Your task to perform on an android device: toggle location history Image 0: 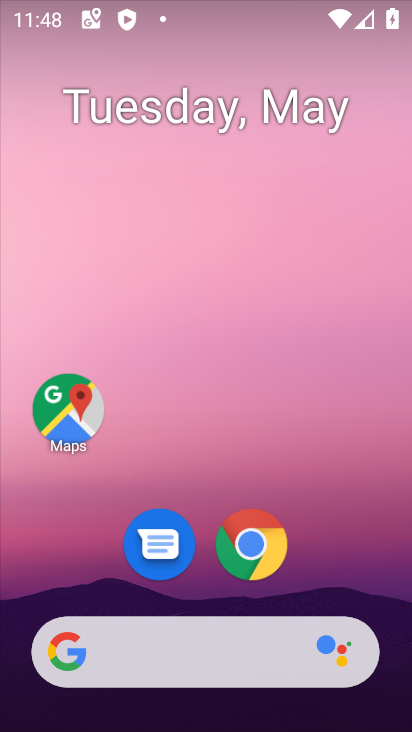
Step 0: drag from (243, 521) to (149, 80)
Your task to perform on an android device: toggle location history Image 1: 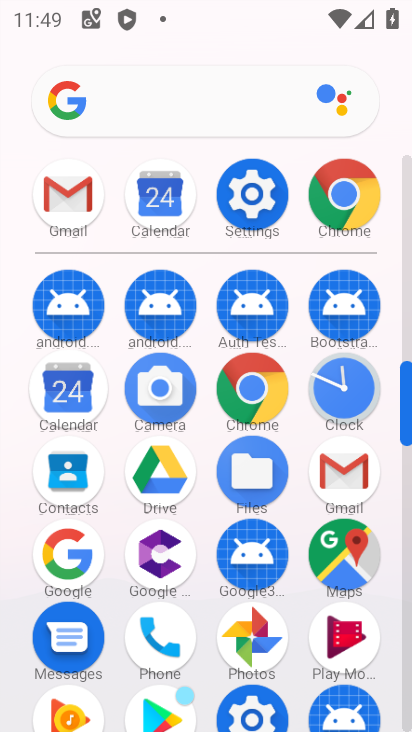
Step 1: click (246, 202)
Your task to perform on an android device: toggle location history Image 2: 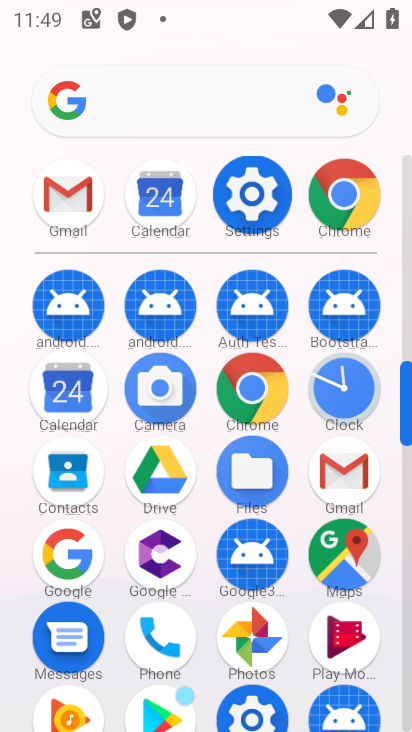
Step 2: click (246, 202)
Your task to perform on an android device: toggle location history Image 3: 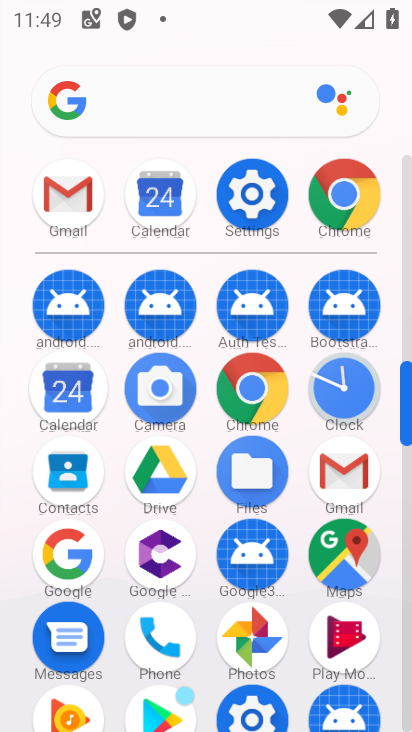
Step 3: click (246, 193)
Your task to perform on an android device: toggle location history Image 4: 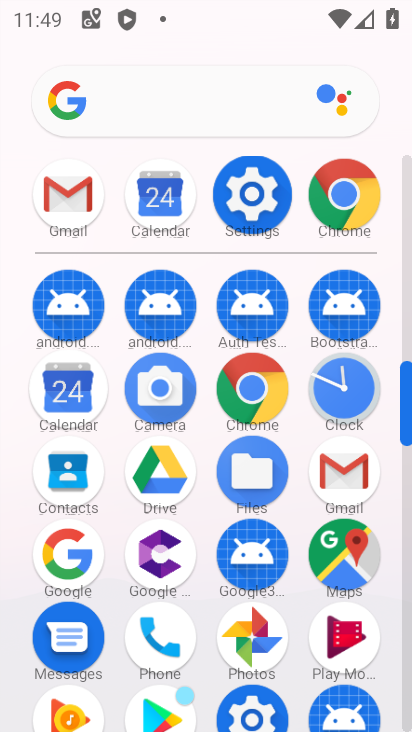
Step 4: click (246, 193)
Your task to perform on an android device: toggle location history Image 5: 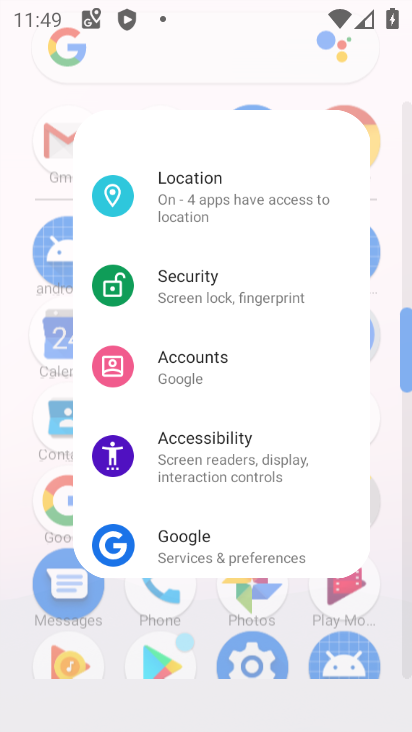
Step 5: click (246, 188)
Your task to perform on an android device: toggle location history Image 6: 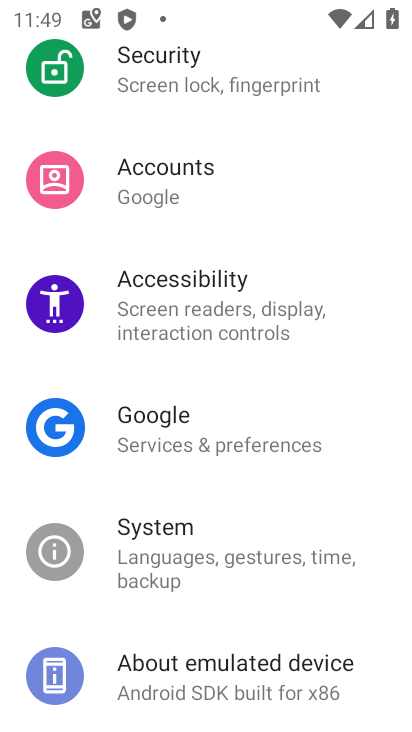
Step 6: click (246, 188)
Your task to perform on an android device: toggle location history Image 7: 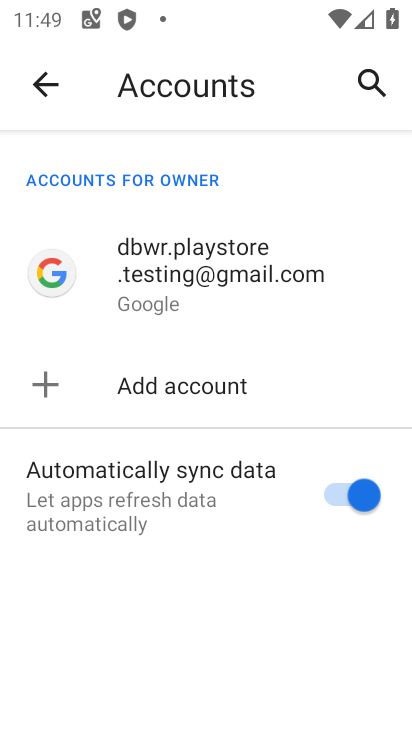
Step 7: click (46, 88)
Your task to perform on an android device: toggle location history Image 8: 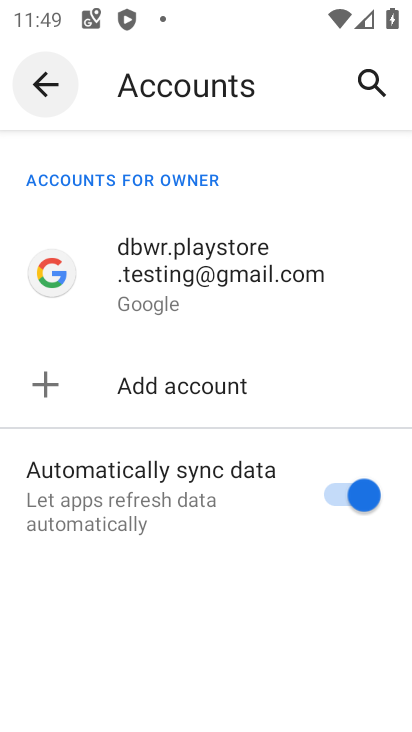
Step 8: click (47, 88)
Your task to perform on an android device: toggle location history Image 9: 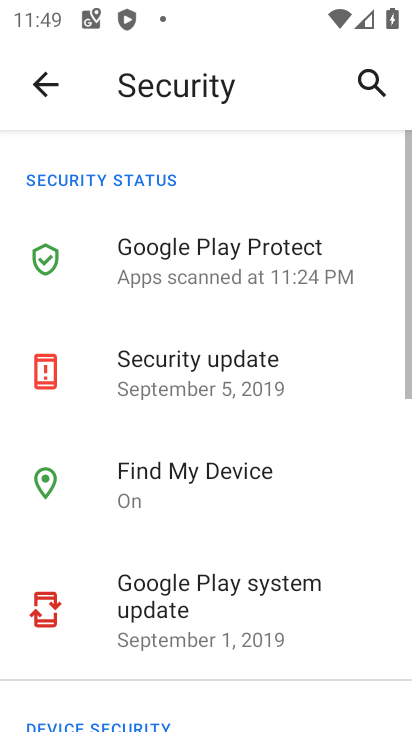
Step 9: click (37, 89)
Your task to perform on an android device: toggle location history Image 10: 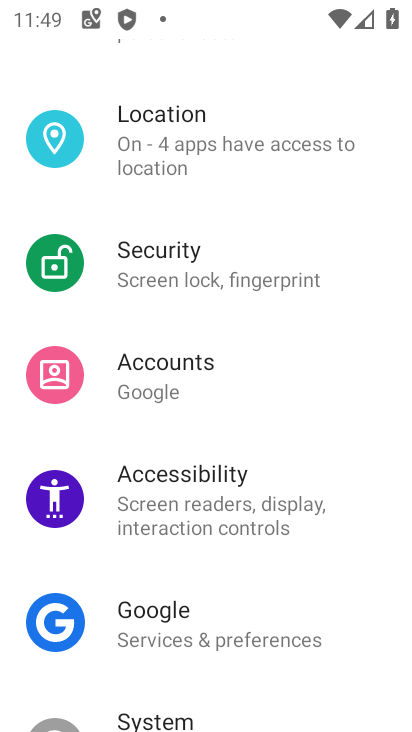
Step 10: drag from (196, 563) to (169, 292)
Your task to perform on an android device: toggle location history Image 11: 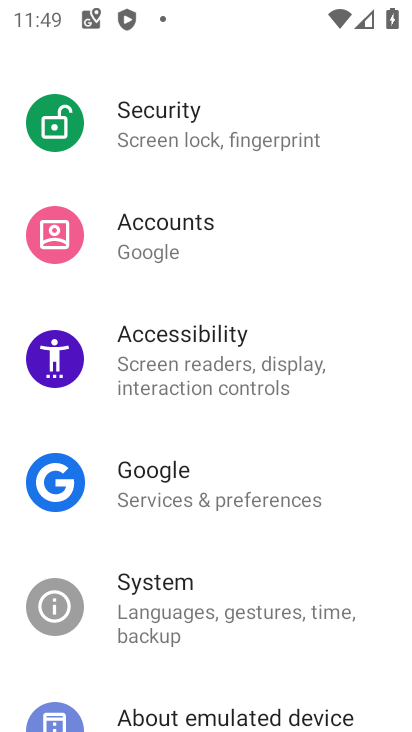
Step 11: drag from (203, 511) to (145, 293)
Your task to perform on an android device: toggle location history Image 12: 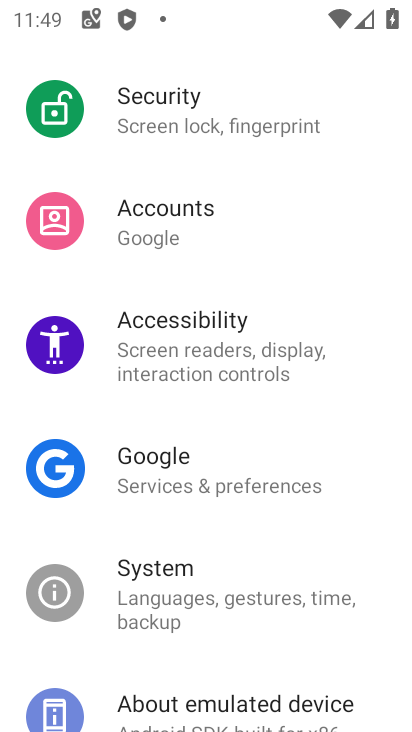
Step 12: drag from (165, 228) to (213, 560)
Your task to perform on an android device: toggle location history Image 13: 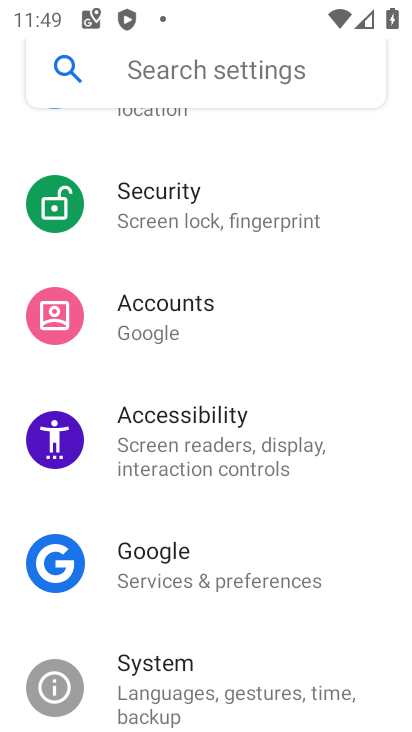
Step 13: drag from (175, 188) to (221, 475)
Your task to perform on an android device: toggle location history Image 14: 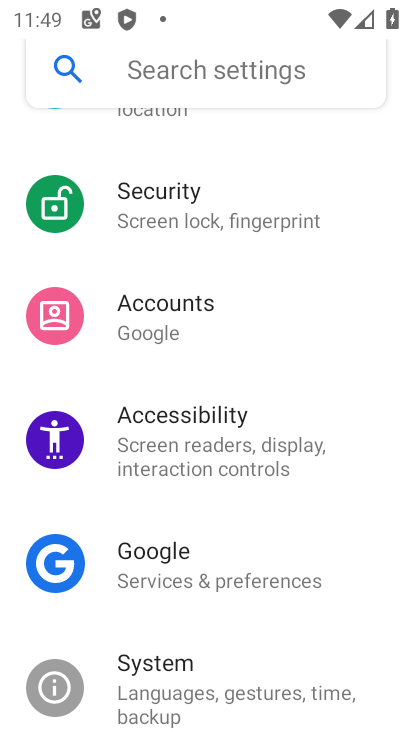
Step 14: drag from (183, 208) to (203, 554)
Your task to perform on an android device: toggle location history Image 15: 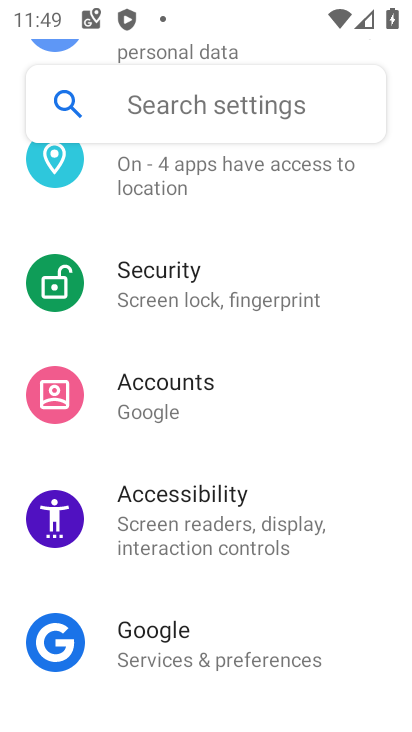
Step 15: drag from (176, 300) to (190, 544)
Your task to perform on an android device: toggle location history Image 16: 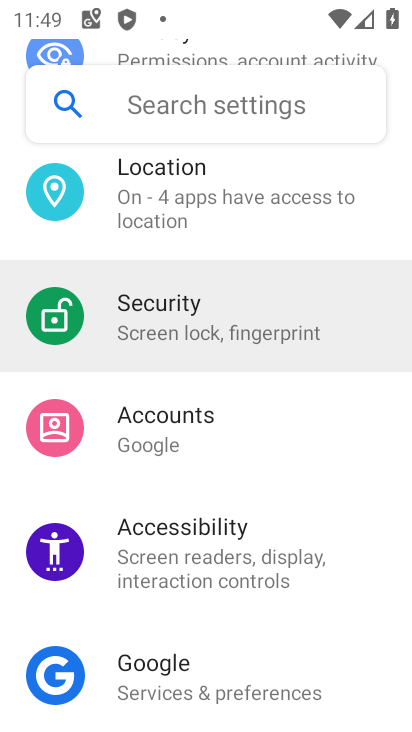
Step 16: drag from (171, 286) to (182, 593)
Your task to perform on an android device: toggle location history Image 17: 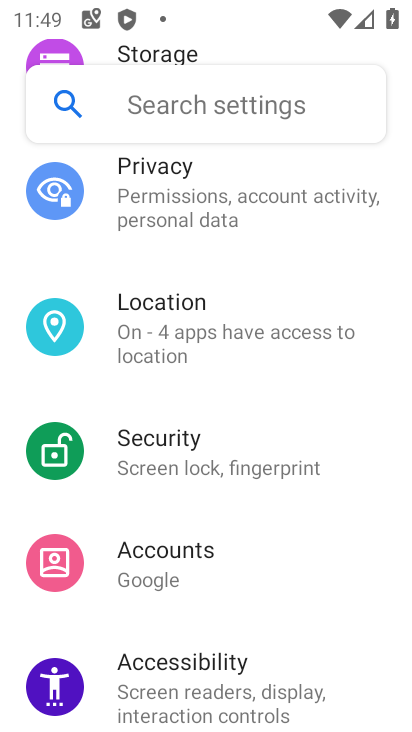
Step 17: click (171, 317)
Your task to perform on an android device: toggle location history Image 18: 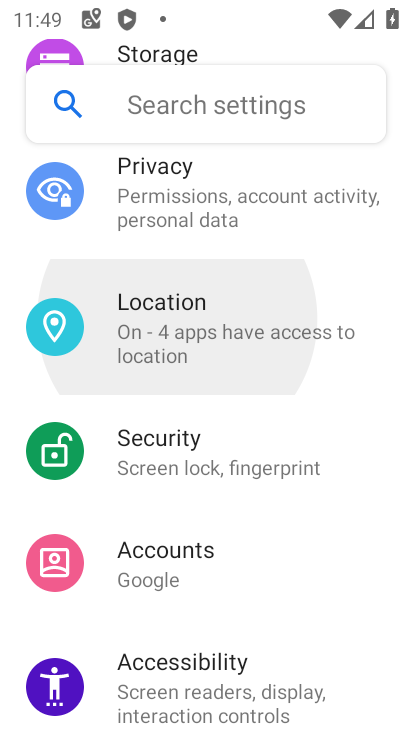
Step 18: click (172, 318)
Your task to perform on an android device: toggle location history Image 19: 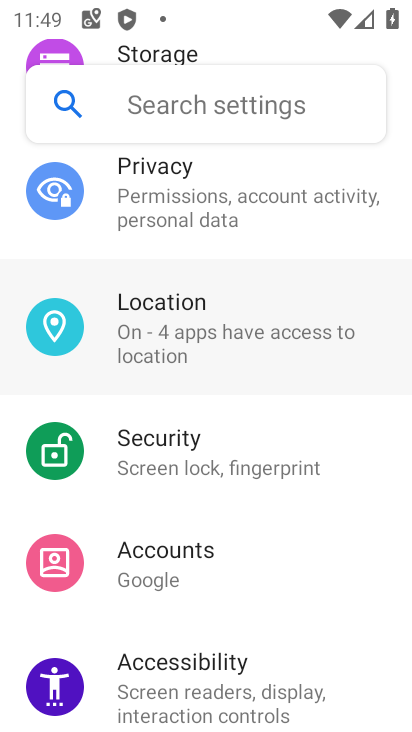
Step 19: click (172, 319)
Your task to perform on an android device: toggle location history Image 20: 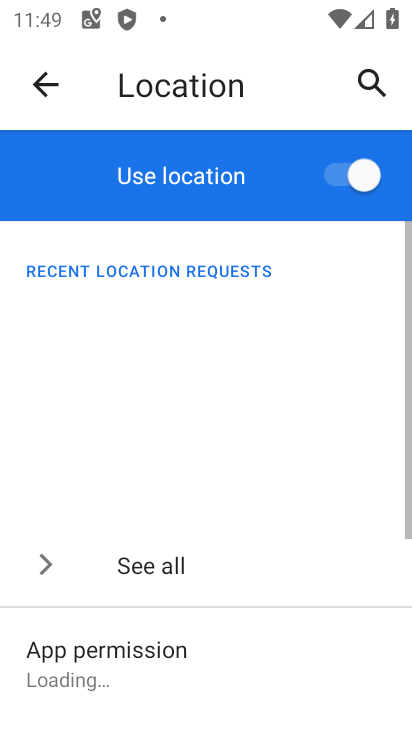
Step 20: click (173, 320)
Your task to perform on an android device: toggle location history Image 21: 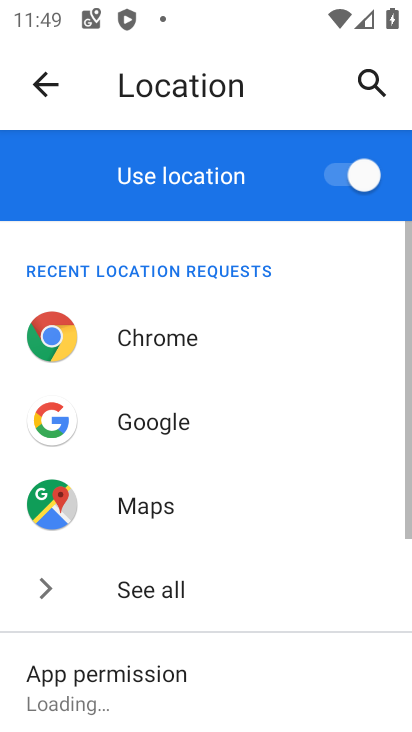
Step 21: drag from (195, 592) to (176, 184)
Your task to perform on an android device: toggle location history Image 22: 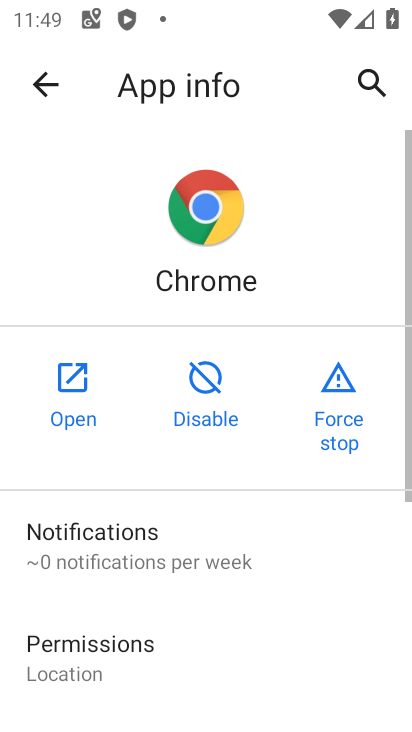
Step 22: drag from (152, 562) to (142, 217)
Your task to perform on an android device: toggle location history Image 23: 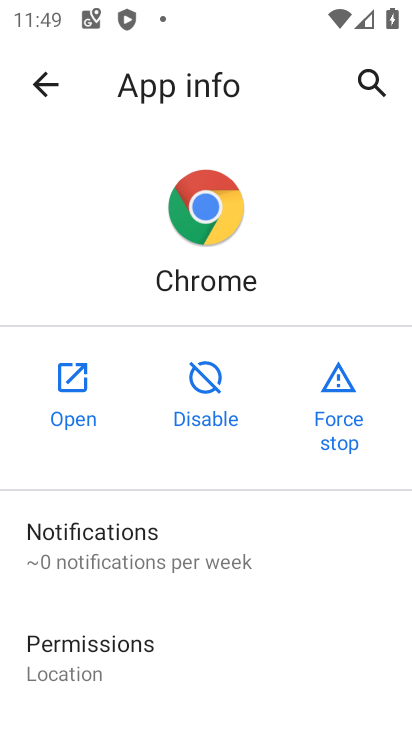
Step 23: drag from (238, 567) to (235, 284)
Your task to perform on an android device: toggle location history Image 24: 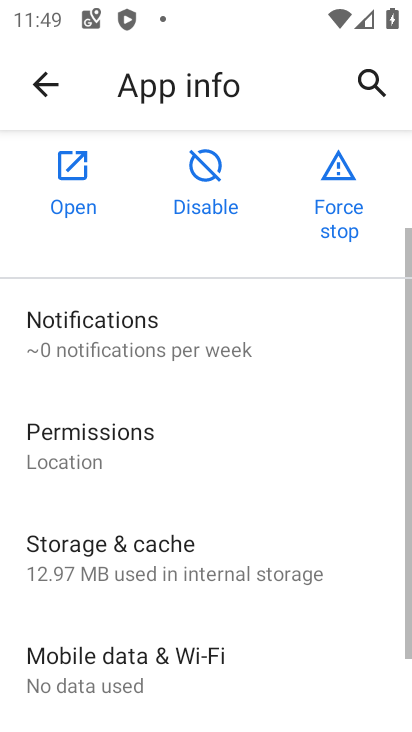
Step 24: drag from (202, 517) to (216, 224)
Your task to perform on an android device: toggle location history Image 25: 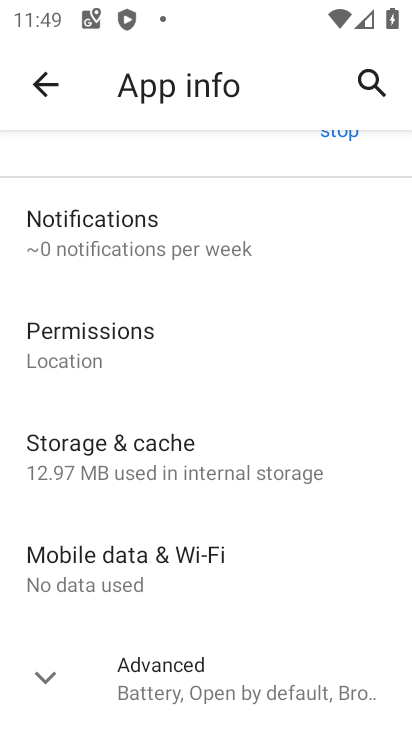
Step 25: click (48, 75)
Your task to perform on an android device: toggle location history Image 26: 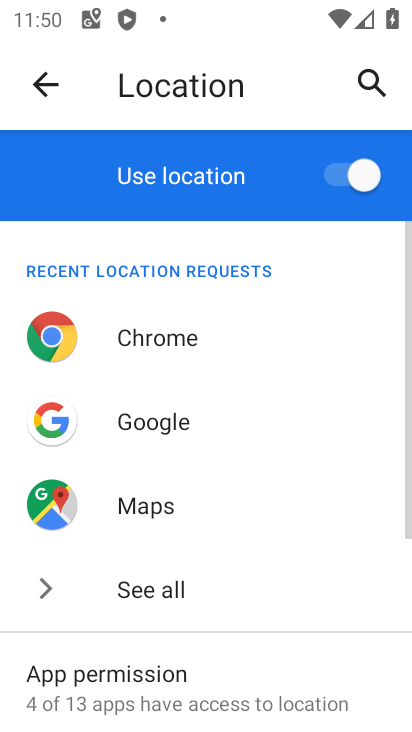
Step 26: drag from (202, 557) to (176, 224)
Your task to perform on an android device: toggle location history Image 27: 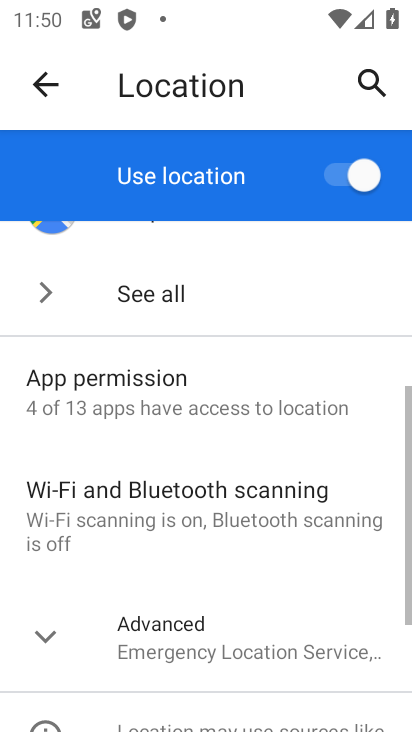
Step 27: drag from (277, 488) to (284, 146)
Your task to perform on an android device: toggle location history Image 28: 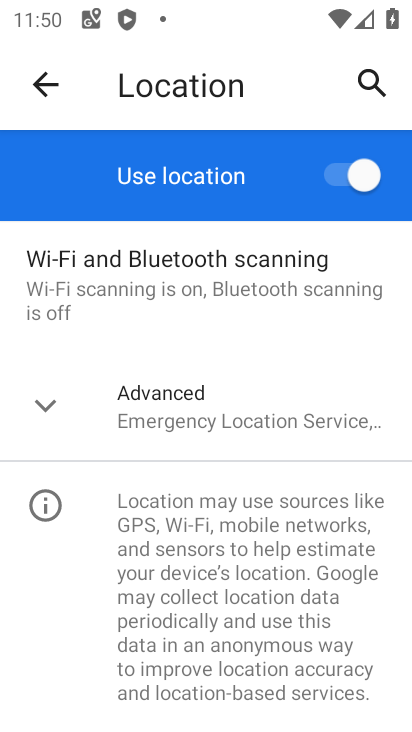
Step 28: click (171, 397)
Your task to perform on an android device: toggle location history Image 29: 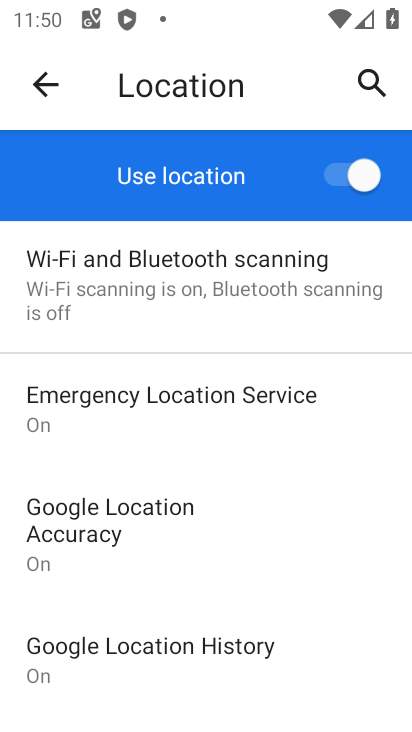
Step 29: drag from (257, 527) to (258, 231)
Your task to perform on an android device: toggle location history Image 30: 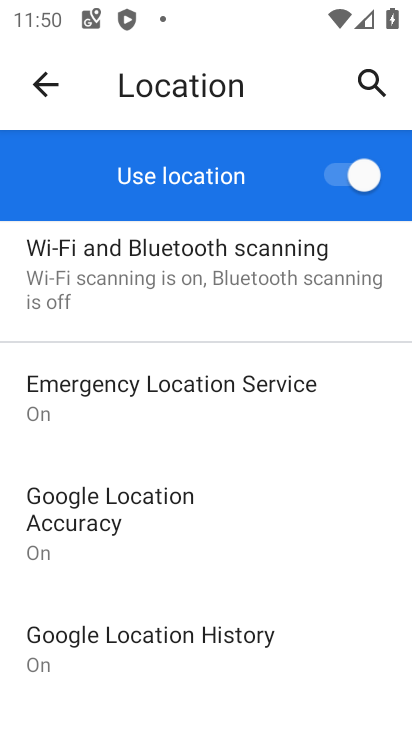
Step 30: click (112, 635)
Your task to perform on an android device: toggle location history Image 31: 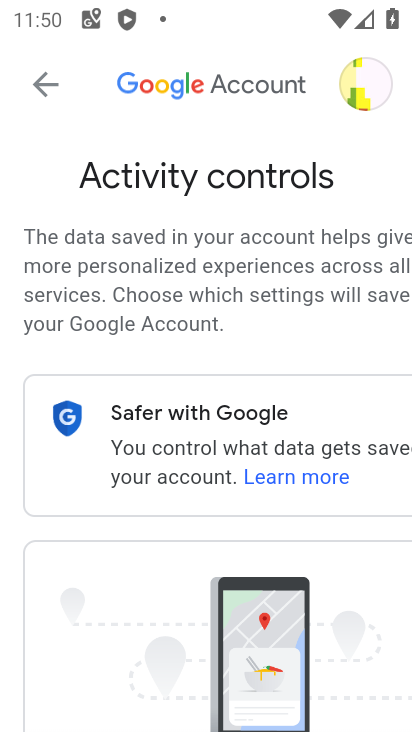
Step 31: drag from (261, 541) to (257, 209)
Your task to perform on an android device: toggle location history Image 32: 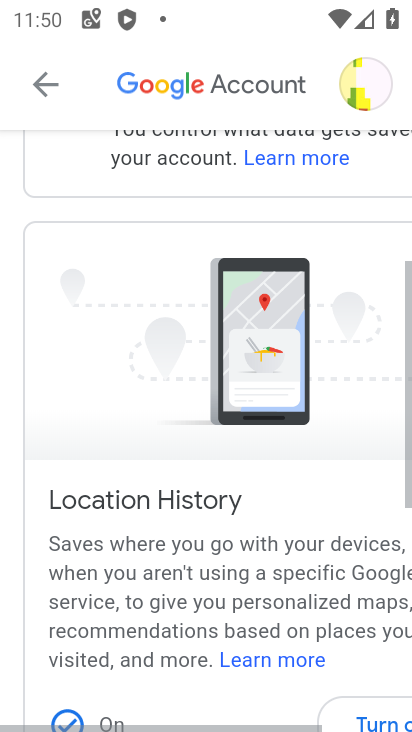
Step 32: drag from (261, 444) to (187, 105)
Your task to perform on an android device: toggle location history Image 33: 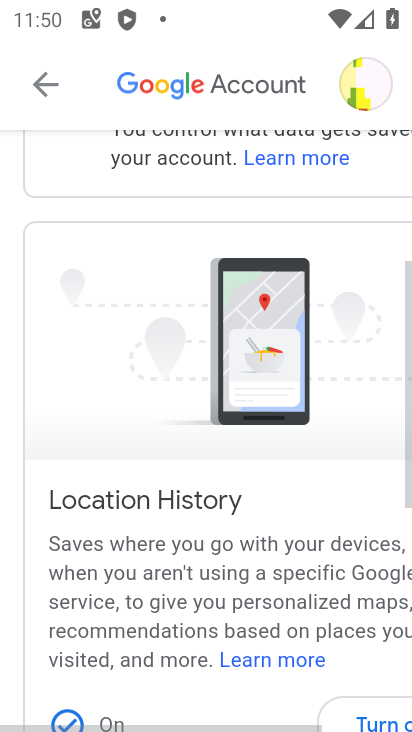
Step 33: click (272, 245)
Your task to perform on an android device: toggle location history Image 34: 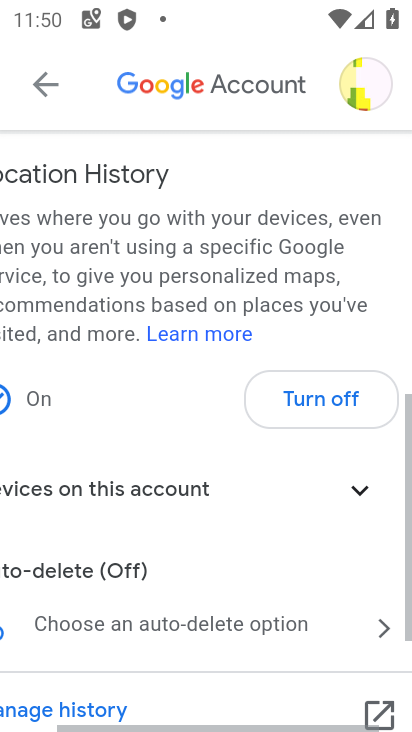
Step 34: task complete